Your task to perform on an android device: Turn off the flashlight Image 0: 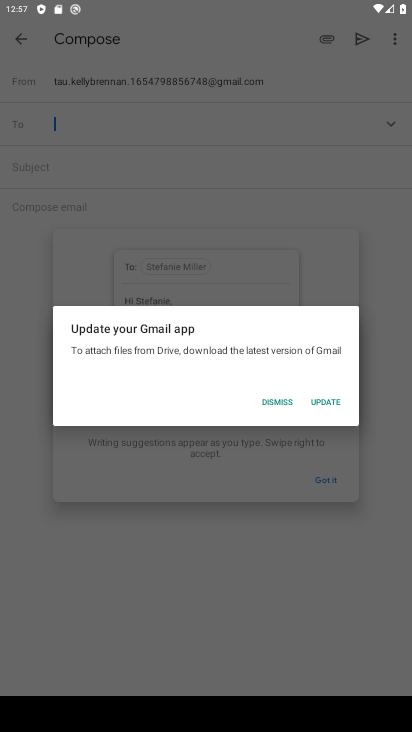
Step 0: press home button
Your task to perform on an android device: Turn off the flashlight Image 1: 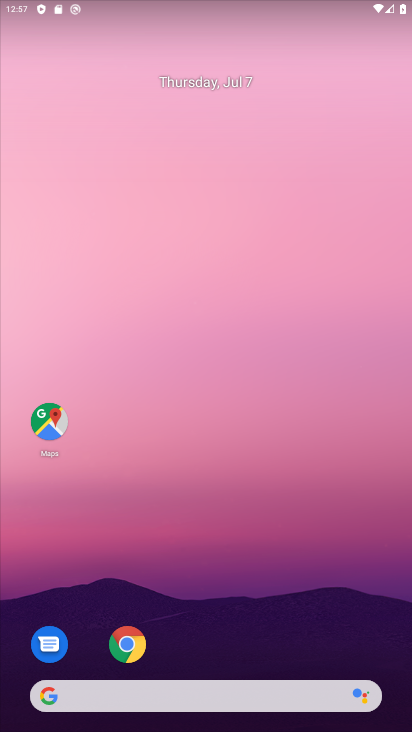
Step 1: task complete